Your task to perform on an android device: open a bookmark in the chrome app Image 0: 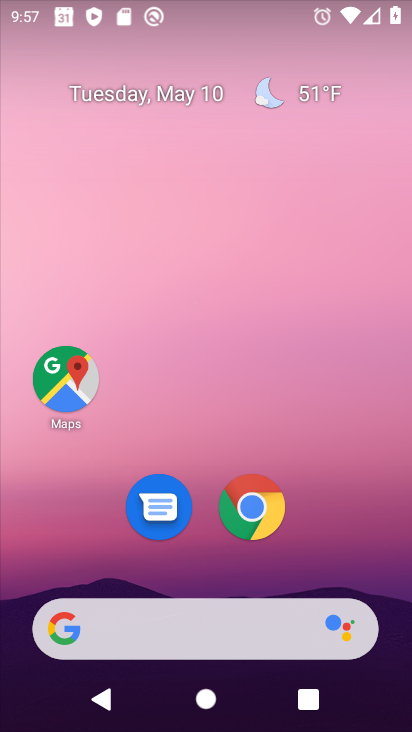
Step 0: click (255, 501)
Your task to perform on an android device: open a bookmark in the chrome app Image 1: 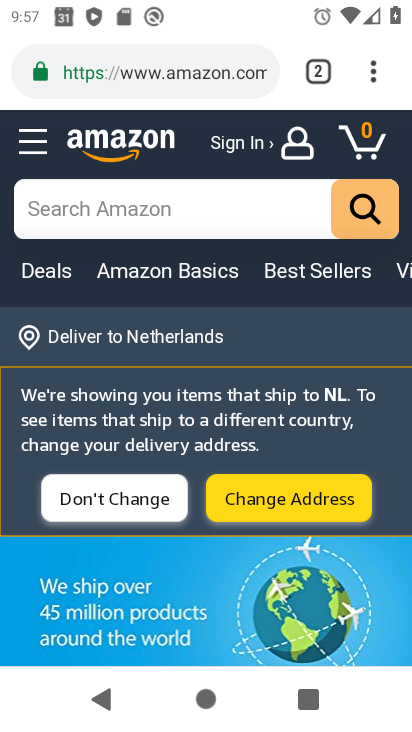
Step 1: click (363, 58)
Your task to perform on an android device: open a bookmark in the chrome app Image 2: 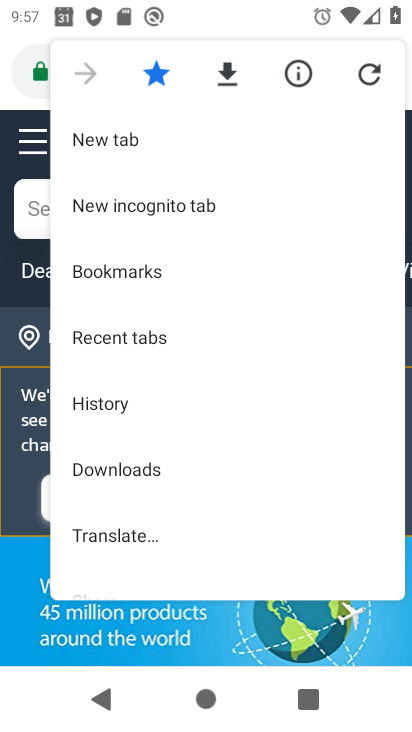
Step 2: click (116, 283)
Your task to perform on an android device: open a bookmark in the chrome app Image 3: 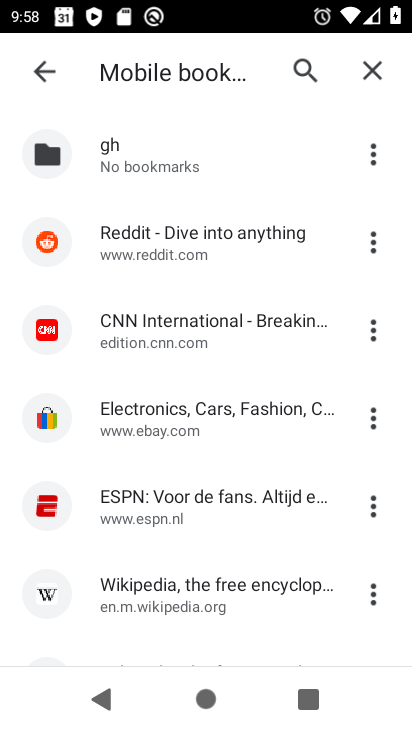
Step 3: click (130, 514)
Your task to perform on an android device: open a bookmark in the chrome app Image 4: 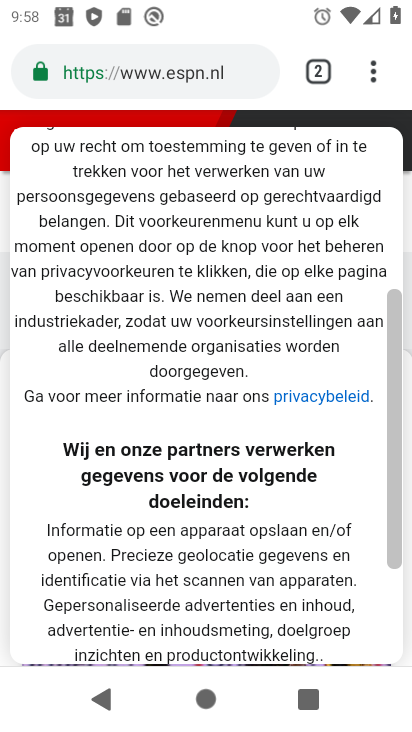
Step 4: task complete